Your task to perform on an android device: Open Reddit.com Image 0: 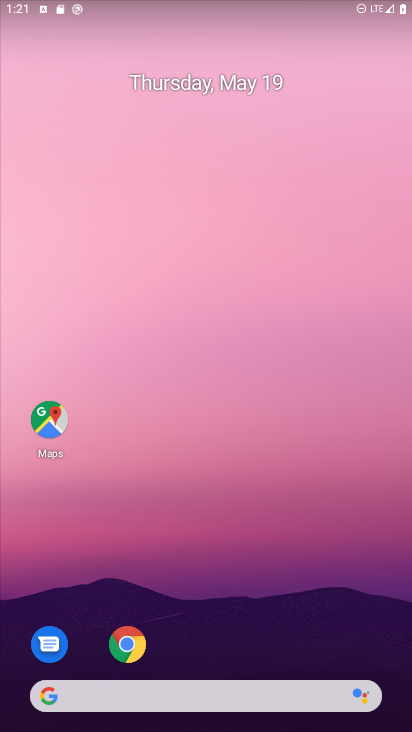
Step 0: drag from (344, 619) to (214, 79)
Your task to perform on an android device: Open Reddit.com Image 1: 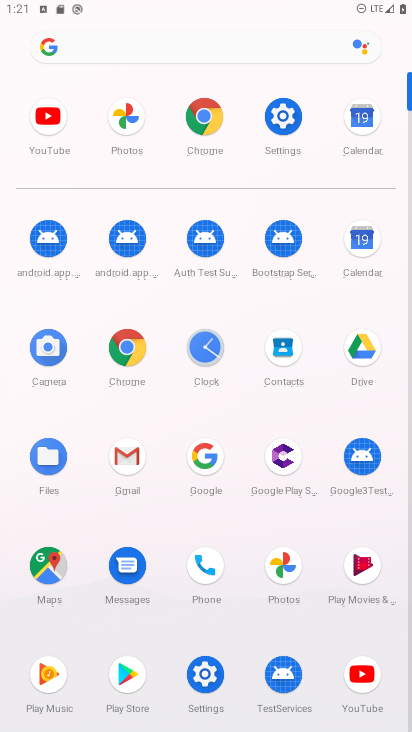
Step 1: click (213, 454)
Your task to perform on an android device: Open Reddit.com Image 2: 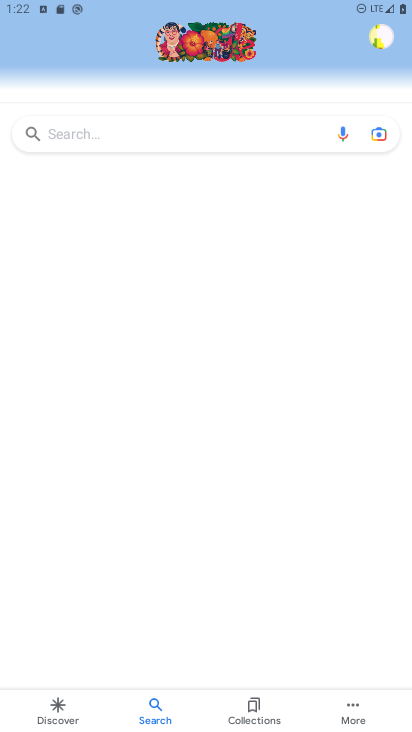
Step 2: click (101, 137)
Your task to perform on an android device: Open Reddit.com Image 3: 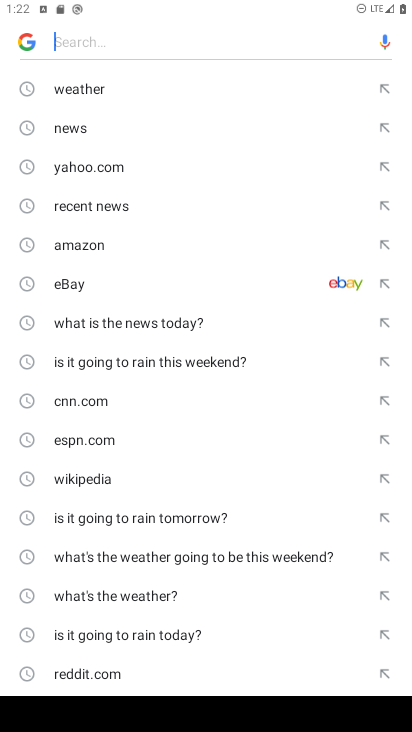
Step 3: click (120, 666)
Your task to perform on an android device: Open Reddit.com Image 4: 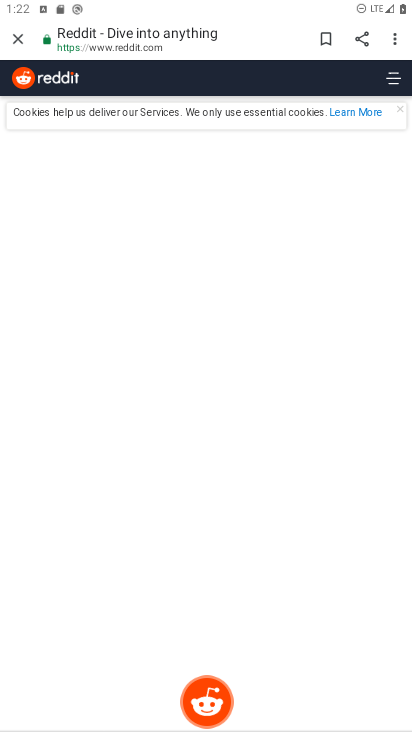
Step 4: task complete